Your task to perform on an android device: Go to settings Image 0: 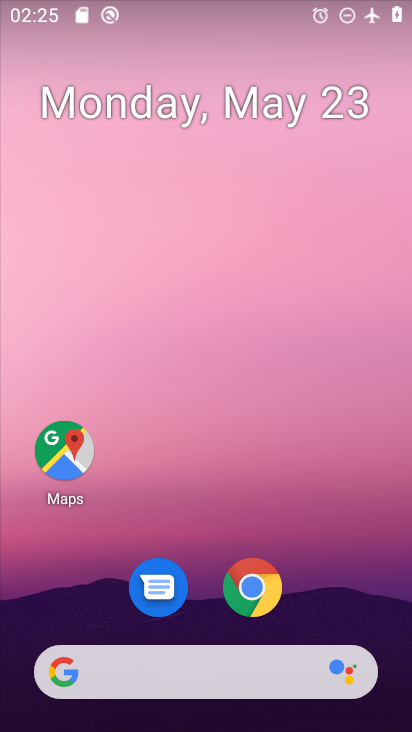
Step 0: drag from (334, 615) to (310, 212)
Your task to perform on an android device: Go to settings Image 1: 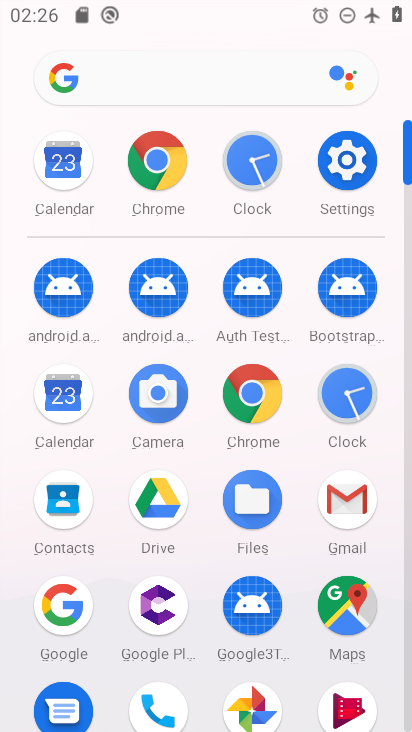
Step 1: click (365, 156)
Your task to perform on an android device: Go to settings Image 2: 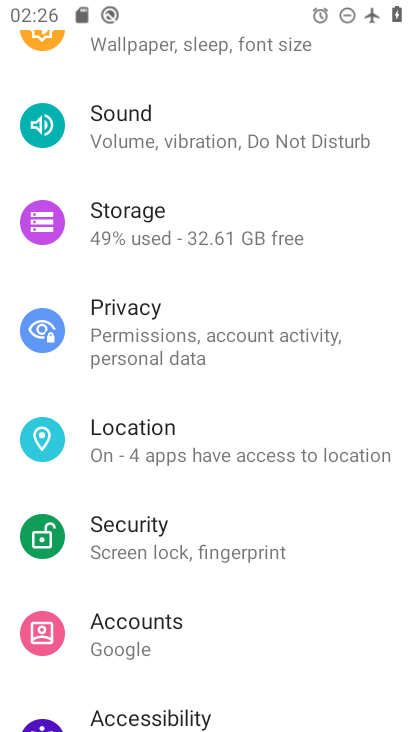
Step 2: task complete